Your task to perform on an android device: change alarm snooze length Image 0: 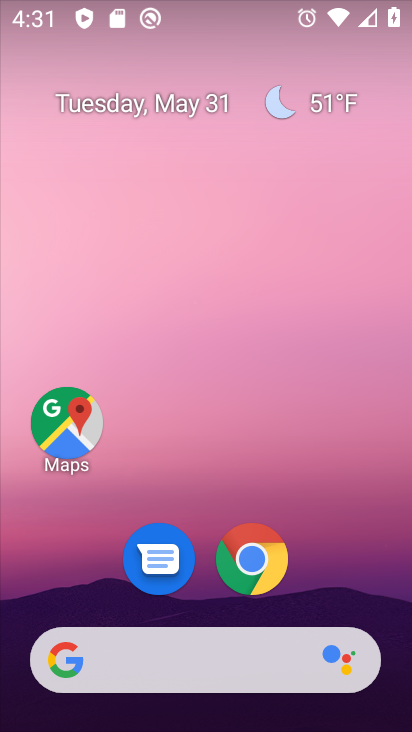
Step 0: drag from (331, 576) to (316, 79)
Your task to perform on an android device: change alarm snooze length Image 1: 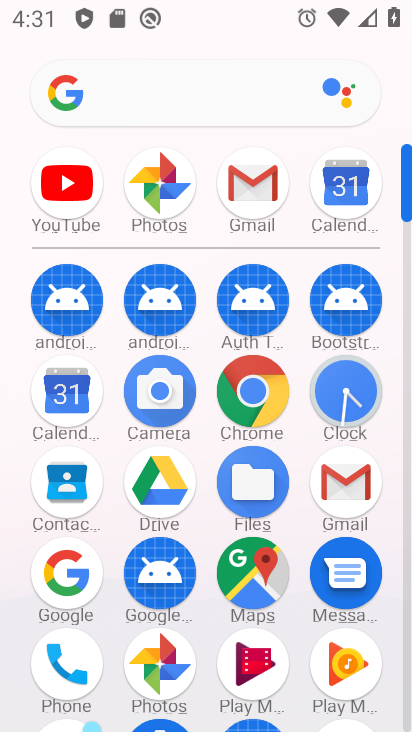
Step 1: click (329, 398)
Your task to perform on an android device: change alarm snooze length Image 2: 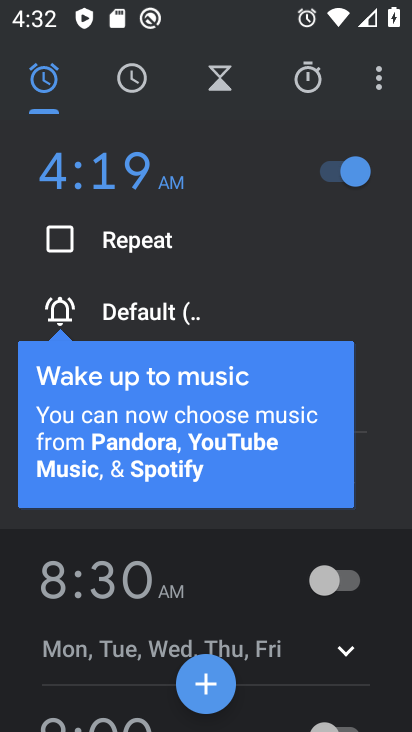
Step 2: click (369, 77)
Your task to perform on an android device: change alarm snooze length Image 3: 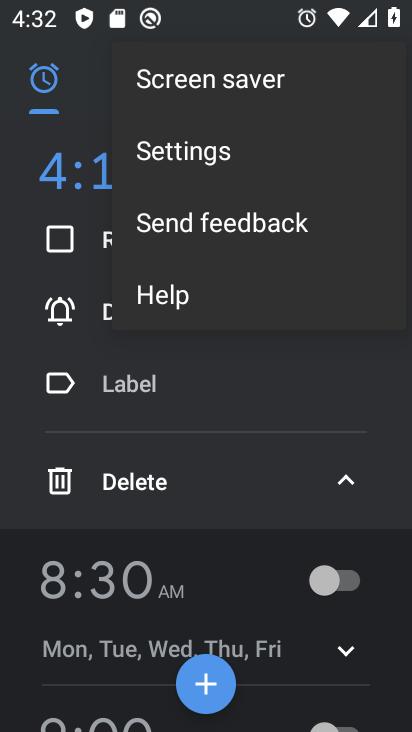
Step 3: click (245, 161)
Your task to perform on an android device: change alarm snooze length Image 4: 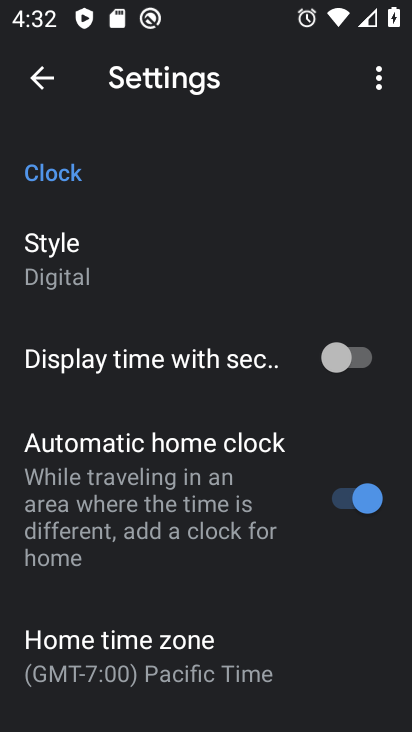
Step 4: drag from (120, 570) to (120, 197)
Your task to perform on an android device: change alarm snooze length Image 5: 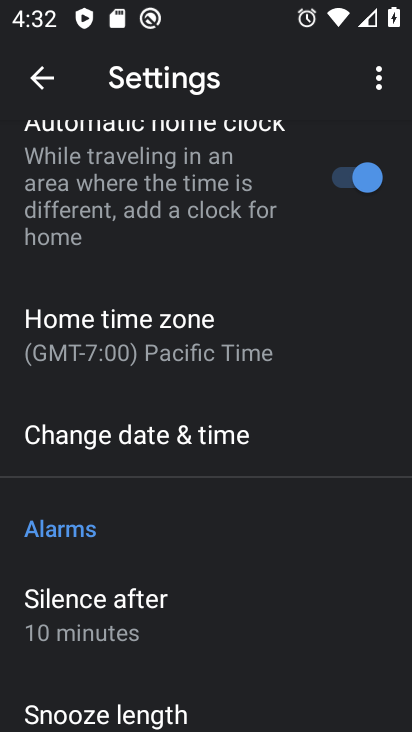
Step 5: click (97, 697)
Your task to perform on an android device: change alarm snooze length Image 6: 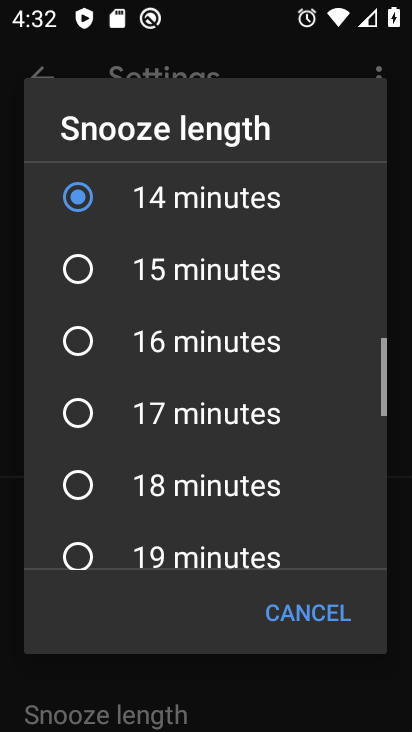
Step 6: click (120, 435)
Your task to perform on an android device: change alarm snooze length Image 7: 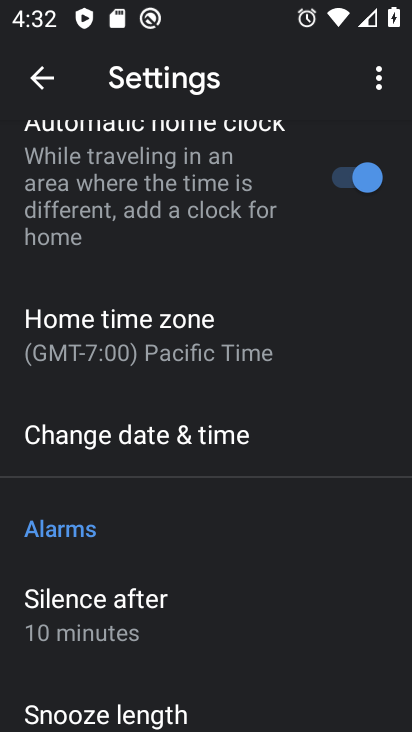
Step 7: task complete